Your task to perform on an android device: stop showing notifications on the lock screen Image 0: 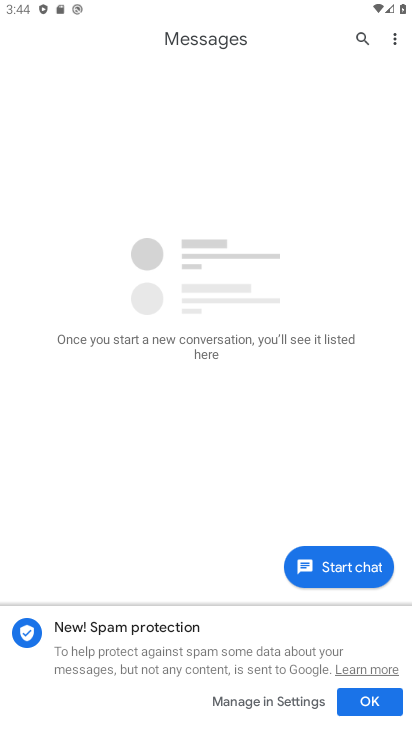
Step 0: press home button
Your task to perform on an android device: stop showing notifications on the lock screen Image 1: 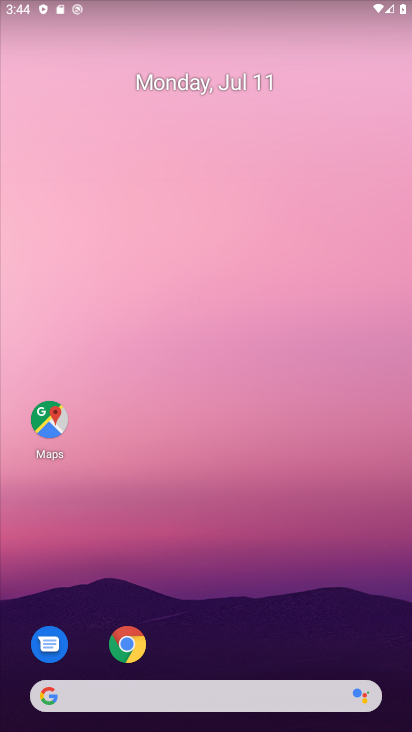
Step 1: drag from (201, 666) to (218, 149)
Your task to perform on an android device: stop showing notifications on the lock screen Image 2: 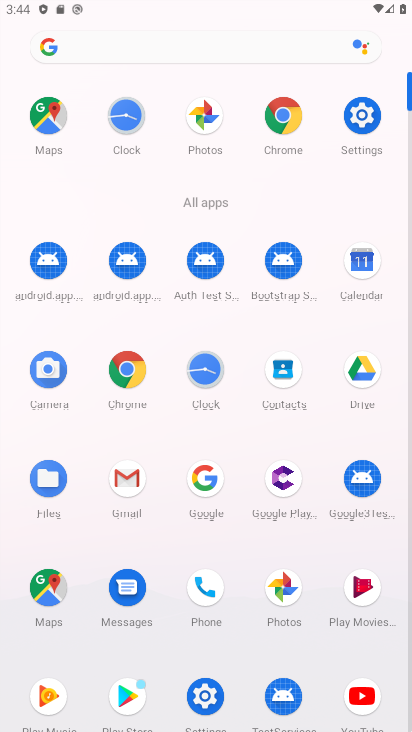
Step 2: click (363, 111)
Your task to perform on an android device: stop showing notifications on the lock screen Image 3: 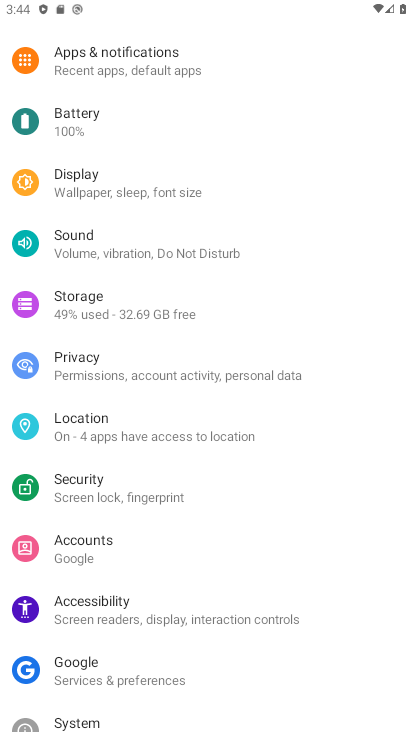
Step 3: click (132, 65)
Your task to perform on an android device: stop showing notifications on the lock screen Image 4: 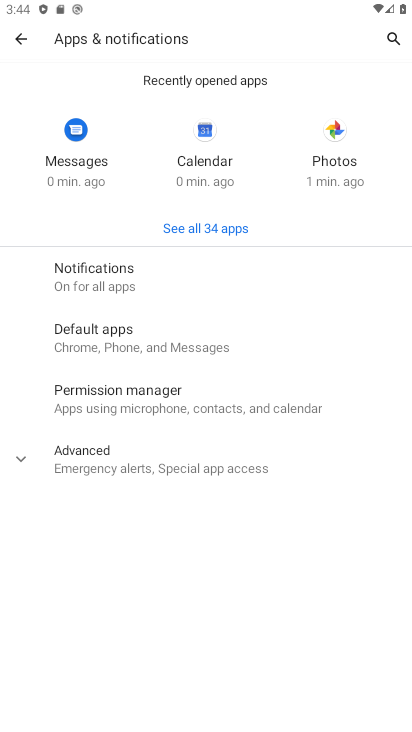
Step 4: click (149, 274)
Your task to perform on an android device: stop showing notifications on the lock screen Image 5: 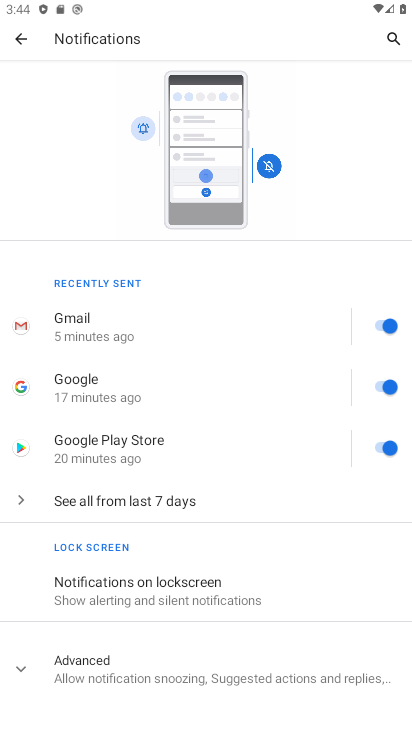
Step 5: click (164, 592)
Your task to perform on an android device: stop showing notifications on the lock screen Image 6: 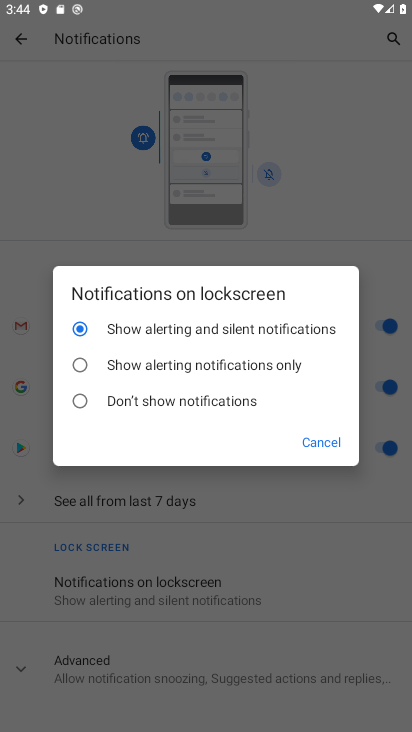
Step 6: click (80, 402)
Your task to perform on an android device: stop showing notifications on the lock screen Image 7: 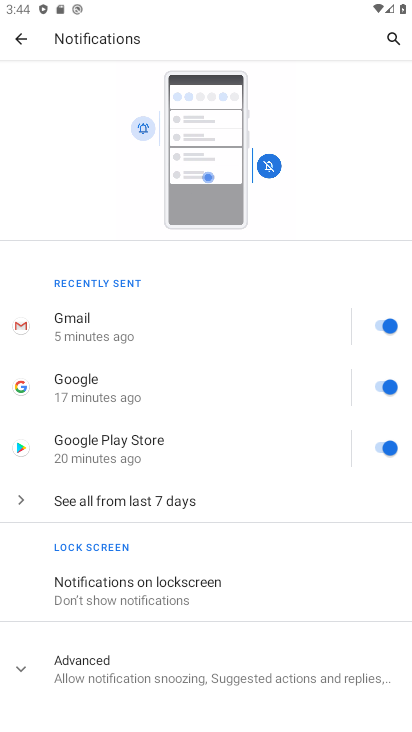
Step 7: task complete